Your task to perform on an android device: Open the Play Movies app and select the watchlist tab. Image 0: 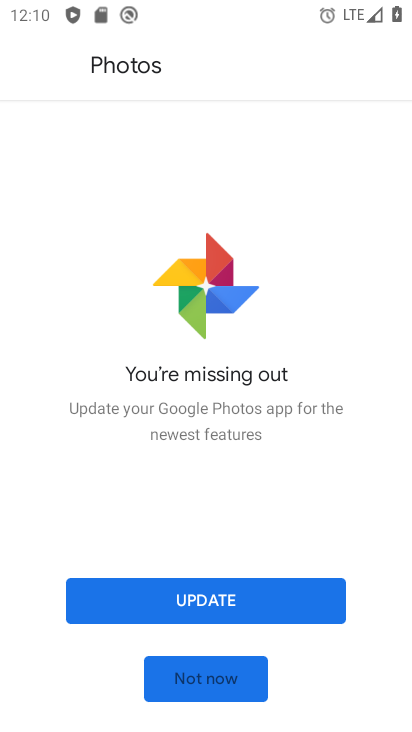
Step 0: press home button
Your task to perform on an android device: Open the Play Movies app and select the watchlist tab. Image 1: 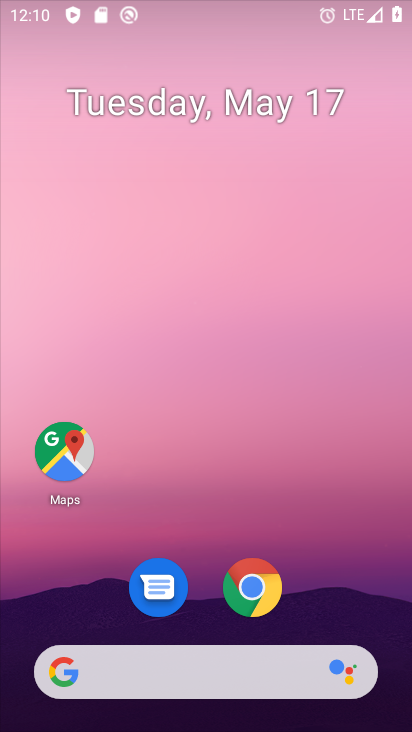
Step 1: drag from (385, 577) to (312, 88)
Your task to perform on an android device: Open the Play Movies app and select the watchlist tab. Image 2: 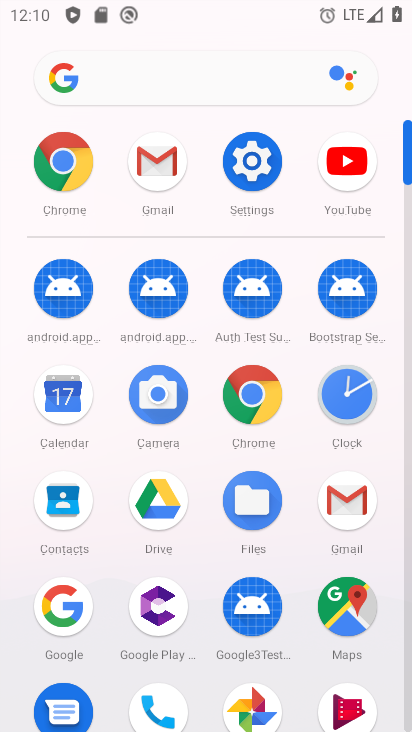
Step 2: click (341, 687)
Your task to perform on an android device: Open the Play Movies app and select the watchlist tab. Image 3: 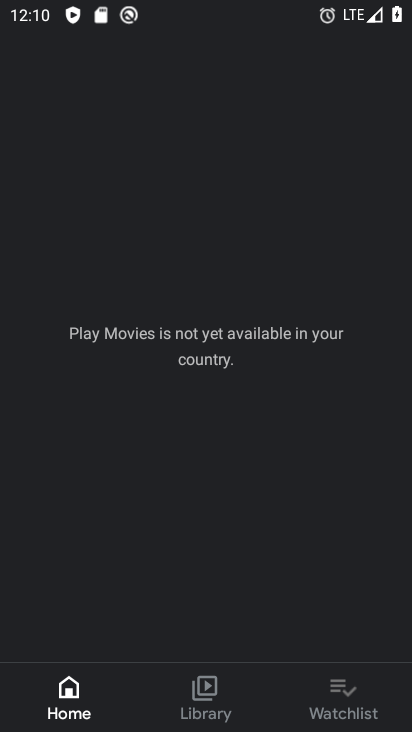
Step 3: click (349, 697)
Your task to perform on an android device: Open the Play Movies app and select the watchlist tab. Image 4: 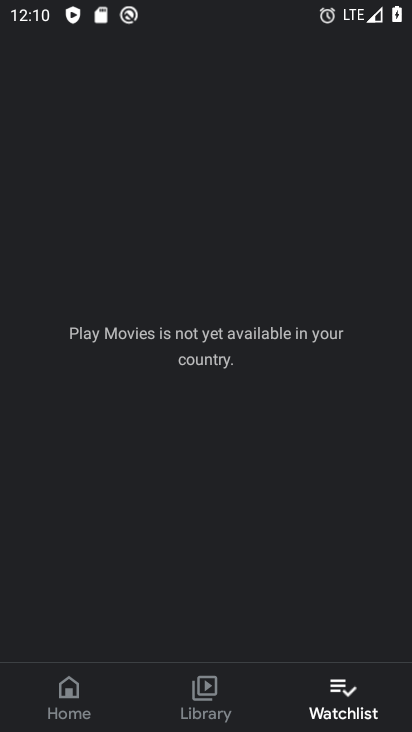
Step 4: task complete